Your task to perform on an android device: Open the web browser Image 0: 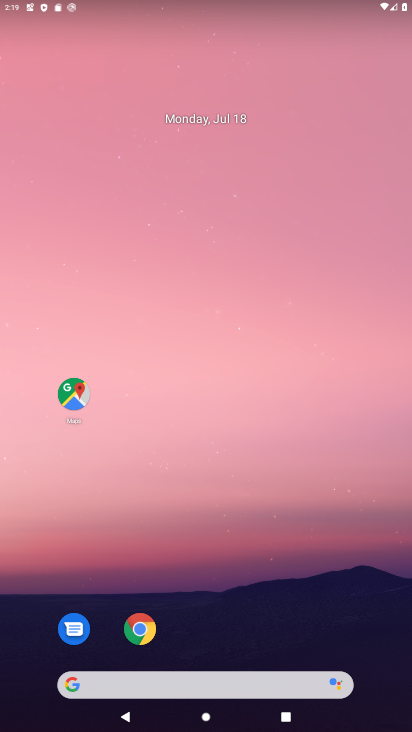
Step 0: click (153, 620)
Your task to perform on an android device: Open the web browser Image 1: 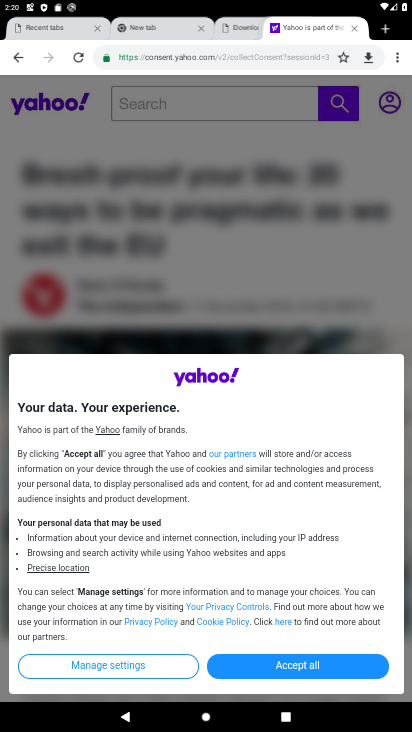
Step 1: task complete